Your task to perform on an android device: Go to Amazon Image 0: 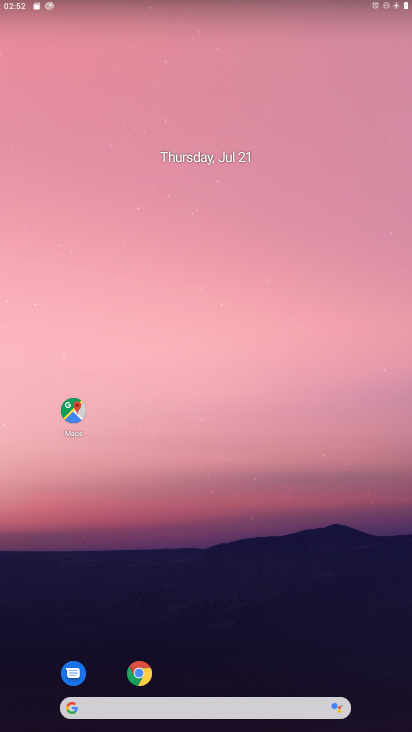
Step 0: drag from (201, 660) to (220, 110)
Your task to perform on an android device: Go to Amazon Image 1: 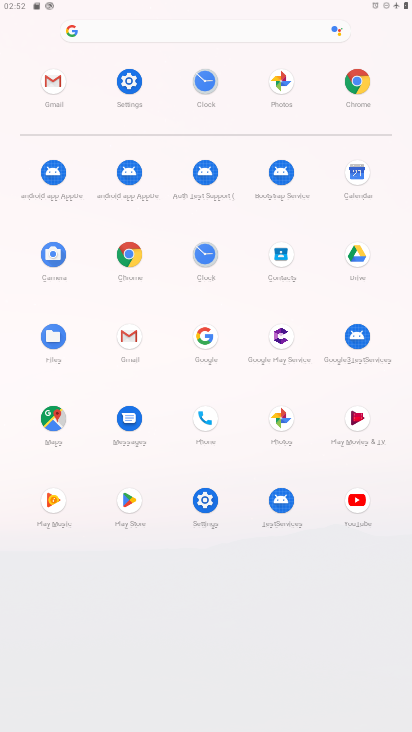
Step 1: click (135, 250)
Your task to perform on an android device: Go to Amazon Image 2: 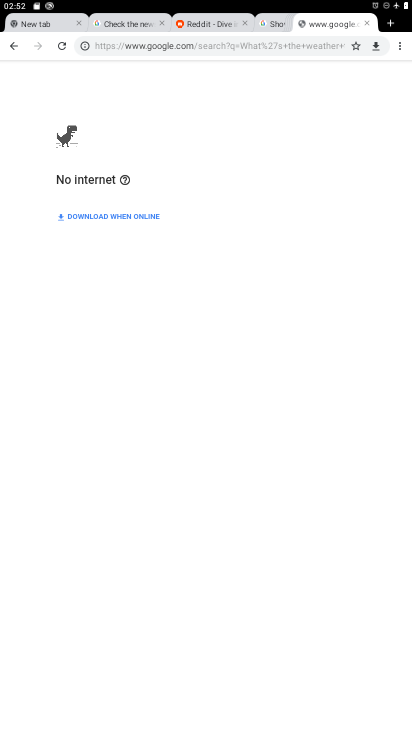
Step 2: click (371, 23)
Your task to perform on an android device: Go to Amazon Image 3: 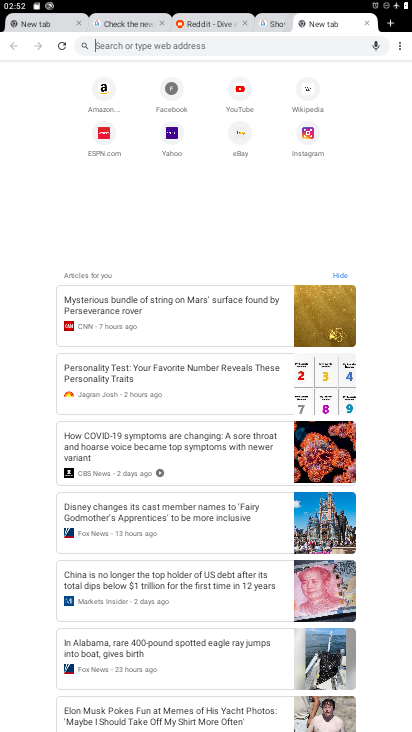
Step 3: click (111, 84)
Your task to perform on an android device: Go to Amazon Image 4: 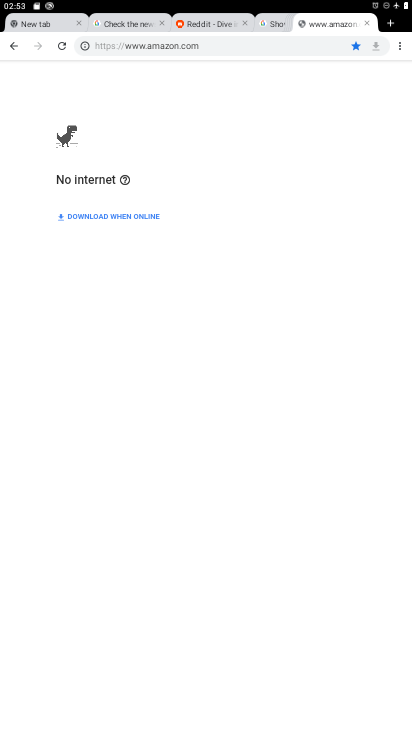
Step 4: task complete